Your task to perform on an android device: Open the map Image 0: 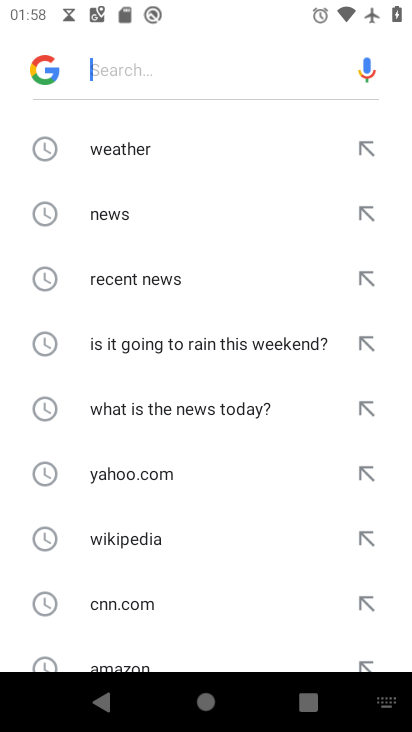
Step 0: press home button
Your task to perform on an android device: Open the map Image 1: 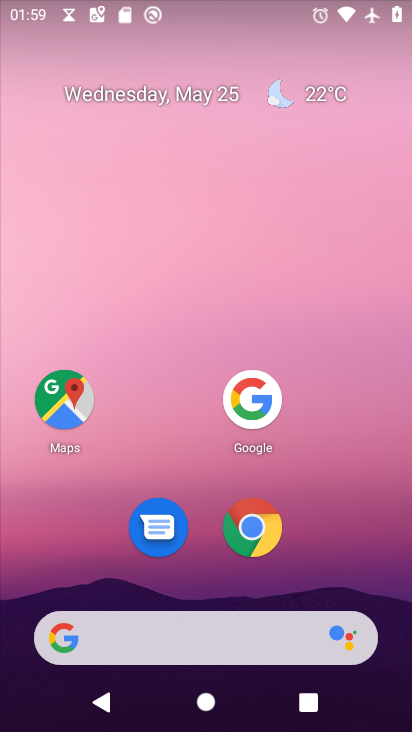
Step 1: click (67, 404)
Your task to perform on an android device: Open the map Image 2: 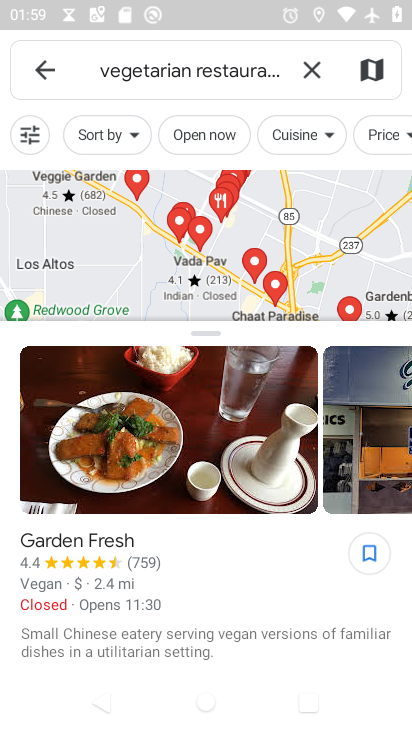
Step 2: task complete